Your task to perform on an android device: Open Google Chrome and click the shortcut for Amazon.com Image 0: 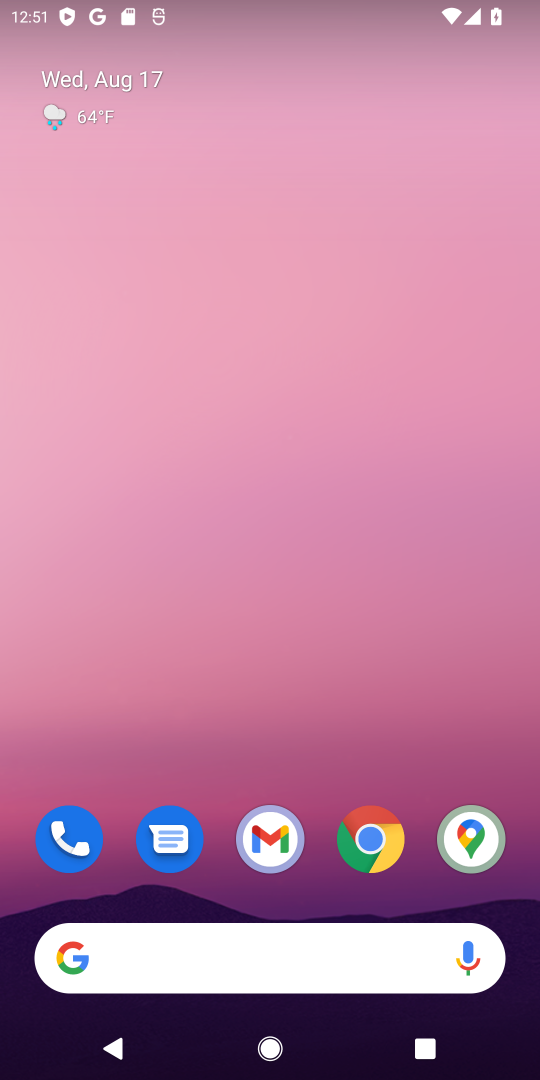
Step 0: click (371, 840)
Your task to perform on an android device: Open Google Chrome and click the shortcut for Amazon.com Image 1: 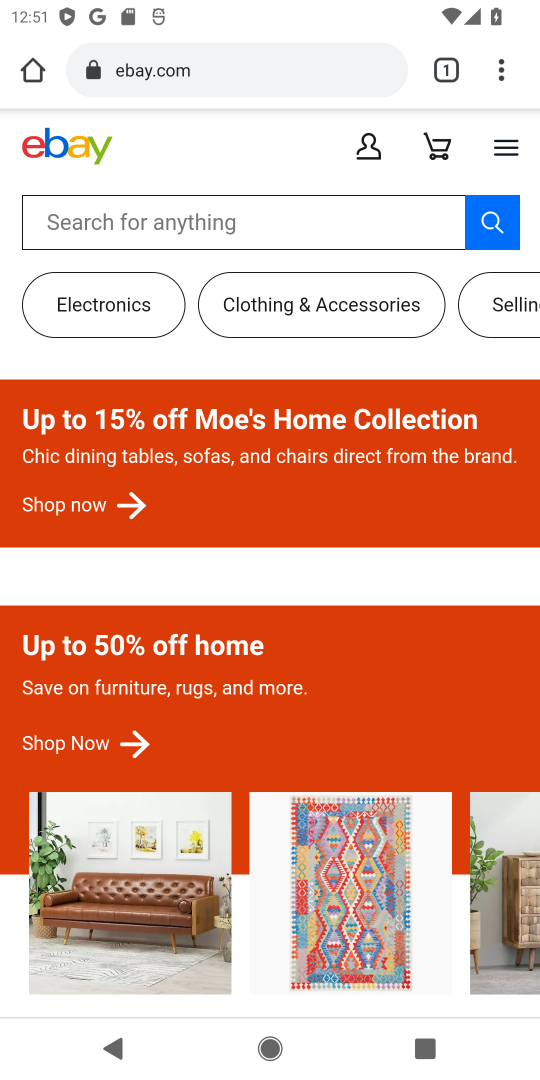
Step 1: click (324, 75)
Your task to perform on an android device: Open Google Chrome and click the shortcut for Amazon.com Image 2: 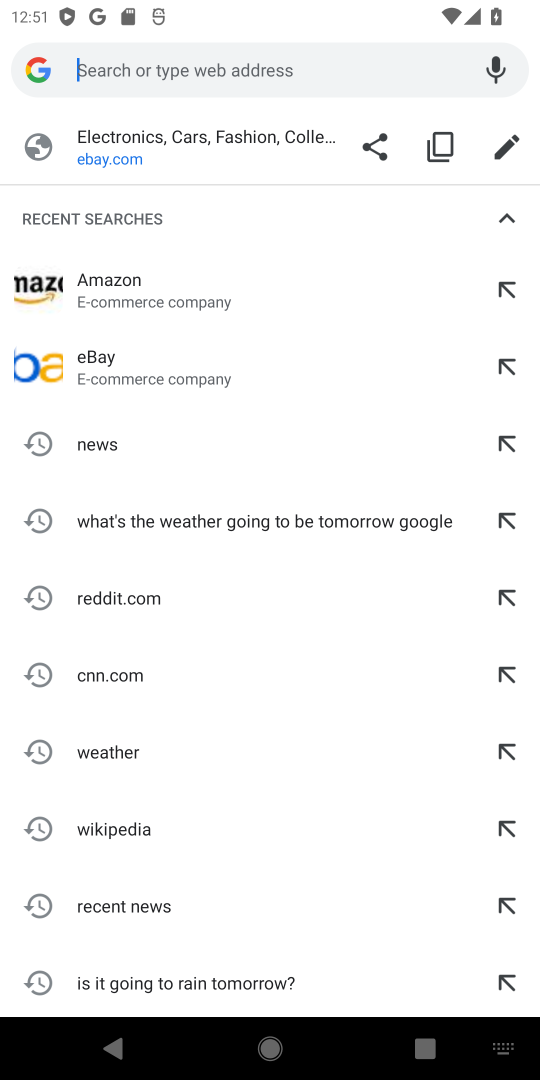
Step 2: type "Amazon.com"
Your task to perform on an android device: Open Google Chrome and click the shortcut for Amazon.com Image 3: 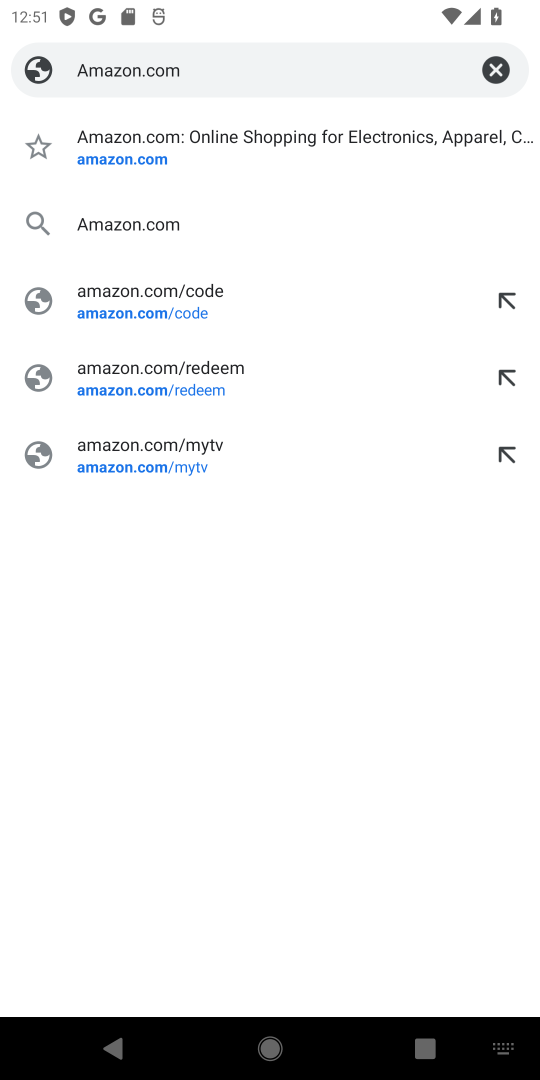
Step 3: click (163, 227)
Your task to perform on an android device: Open Google Chrome and click the shortcut for Amazon.com Image 4: 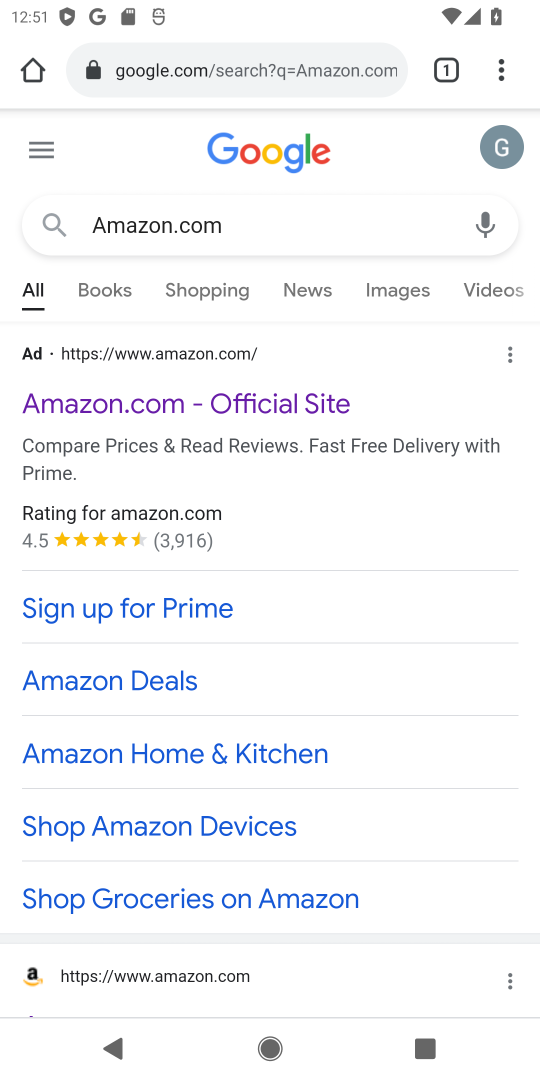
Step 4: drag from (207, 742) to (297, 600)
Your task to perform on an android device: Open Google Chrome and click the shortcut for Amazon.com Image 5: 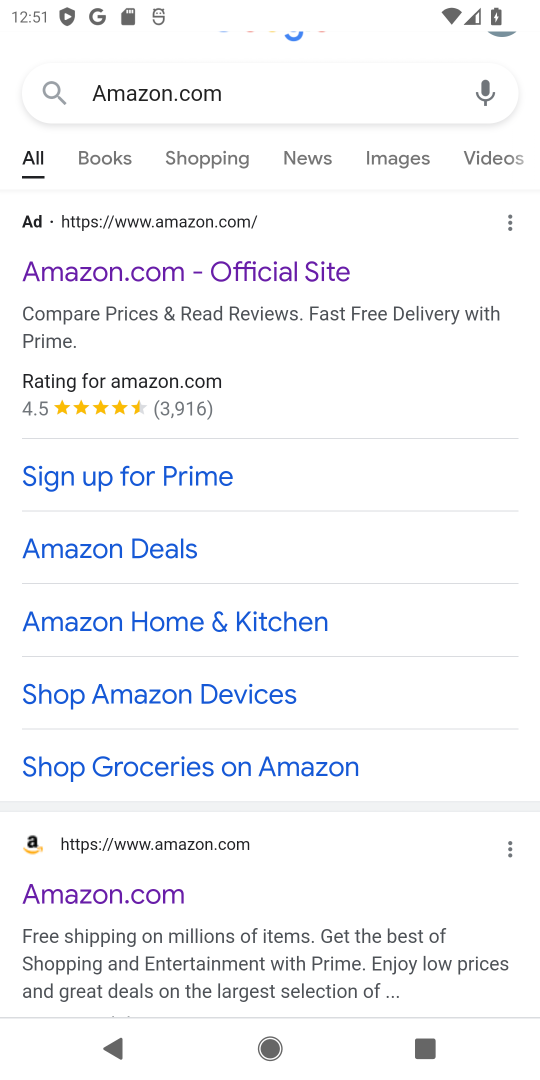
Step 5: click (179, 893)
Your task to perform on an android device: Open Google Chrome and click the shortcut for Amazon.com Image 6: 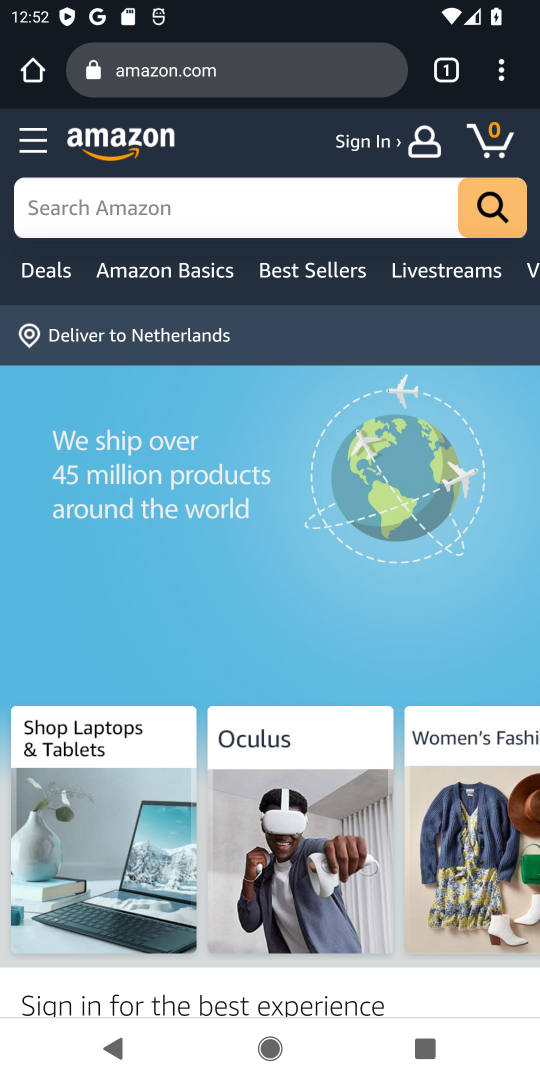
Step 6: drag from (498, 73) to (443, 685)
Your task to perform on an android device: Open Google Chrome and click the shortcut for Amazon.com Image 7: 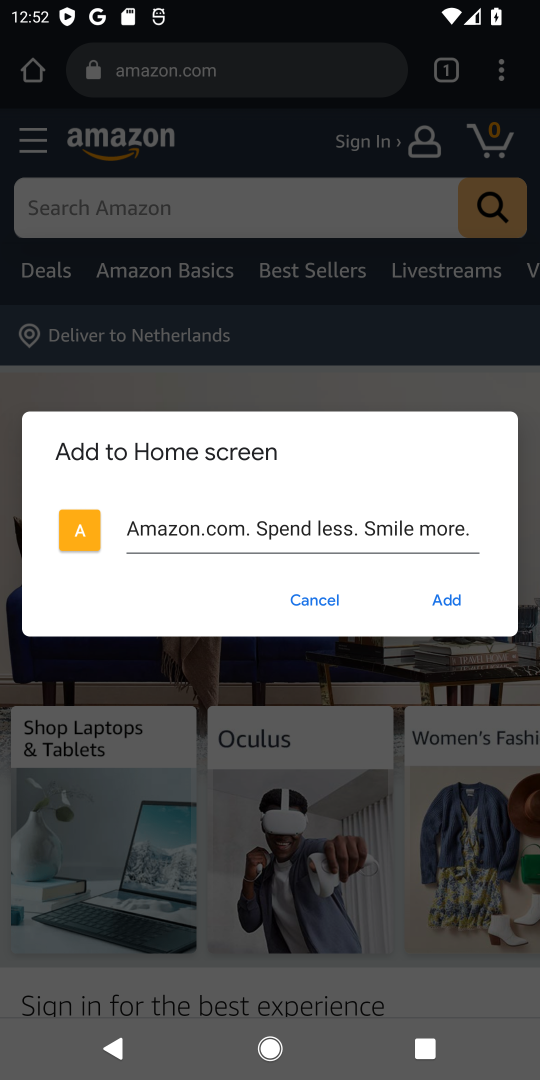
Step 7: click (471, 594)
Your task to perform on an android device: Open Google Chrome and click the shortcut for Amazon.com Image 8: 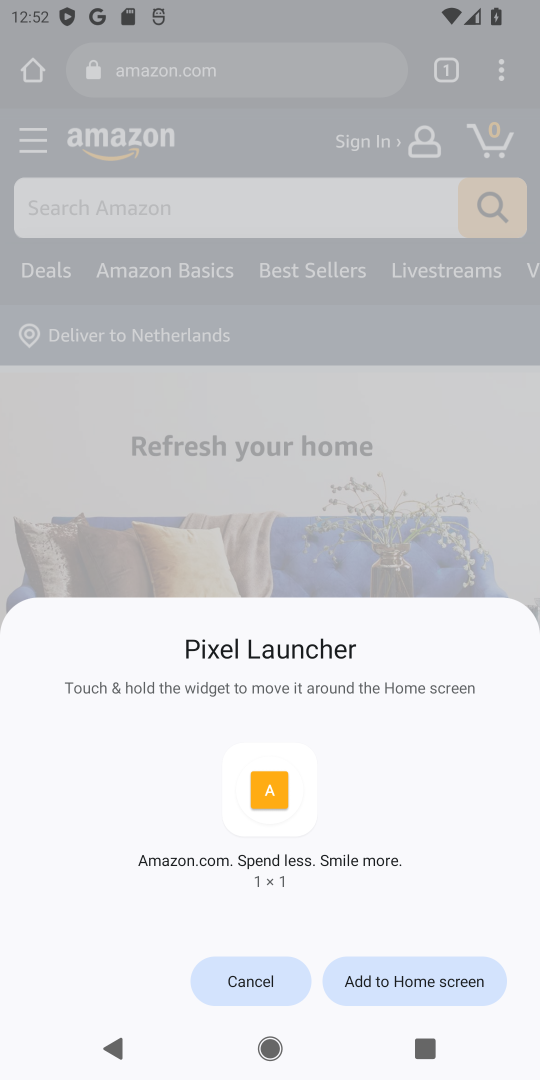
Step 8: click (391, 1007)
Your task to perform on an android device: Open Google Chrome and click the shortcut for Amazon.com Image 9: 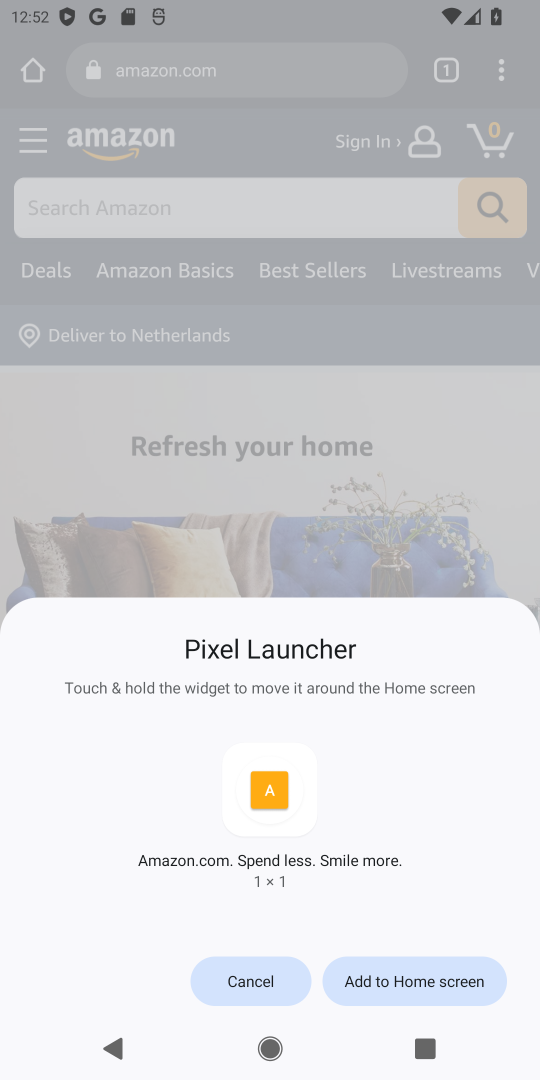
Step 9: click (265, 992)
Your task to perform on an android device: Open Google Chrome and click the shortcut for Amazon.com Image 10: 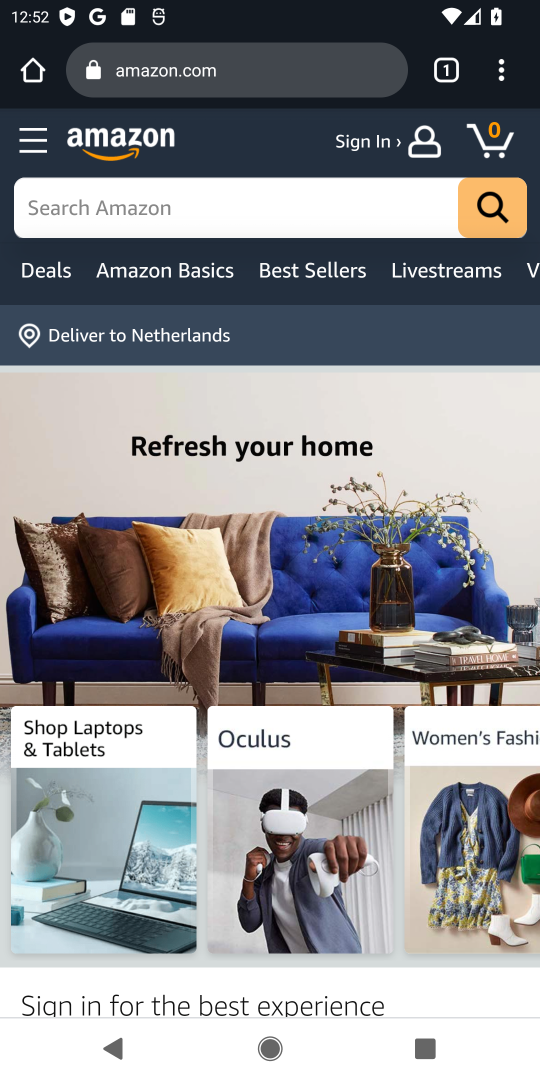
Step 10: task complete